Your task to perform on an android device: Open Wikipedia Image 0: 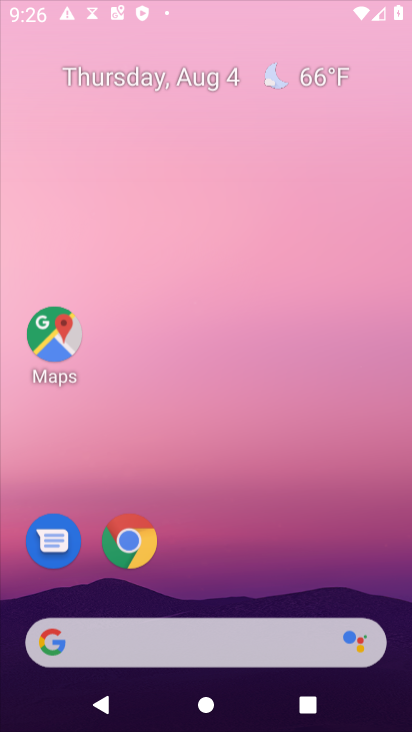
Step 0: press home button
Your task to perform on an android device: Open Wikipedia Image 1: 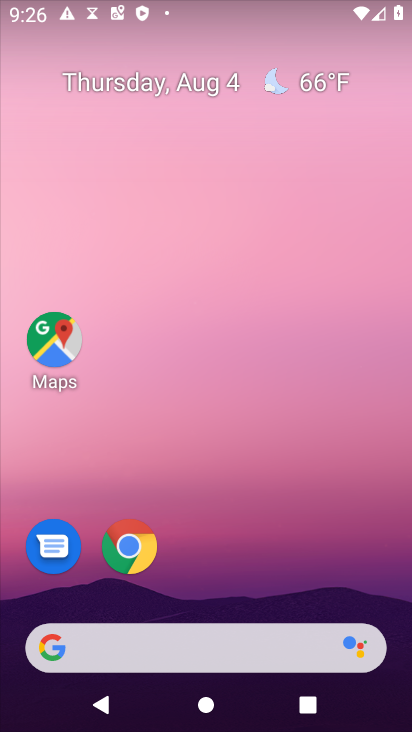
Step 1: click (48, 650)
Your task to perform on an android device: Open Wikipedia Image 2: 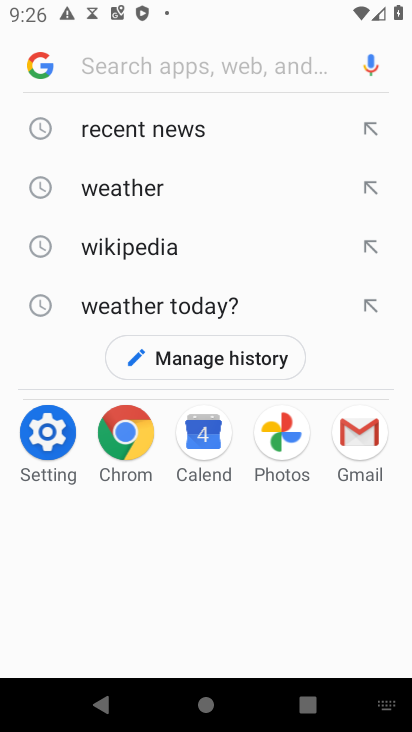
Step 2: click (127, 255)
Your task to perform on an android device: Open Wikipedia Image 3: 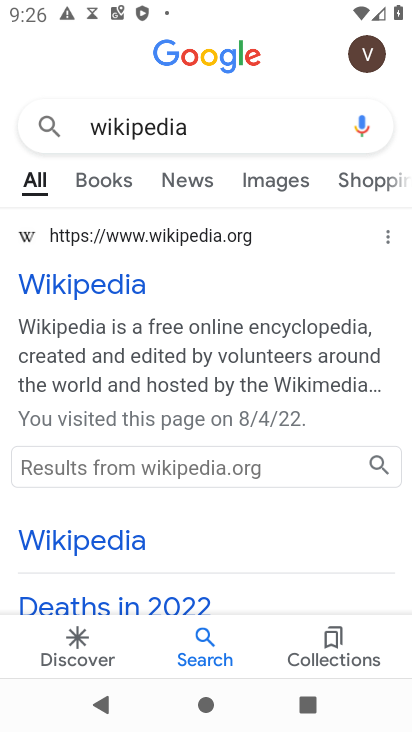
Step 3: click (65, 296)
Your task to perform on an android device: Open Wikipedia Image 4: 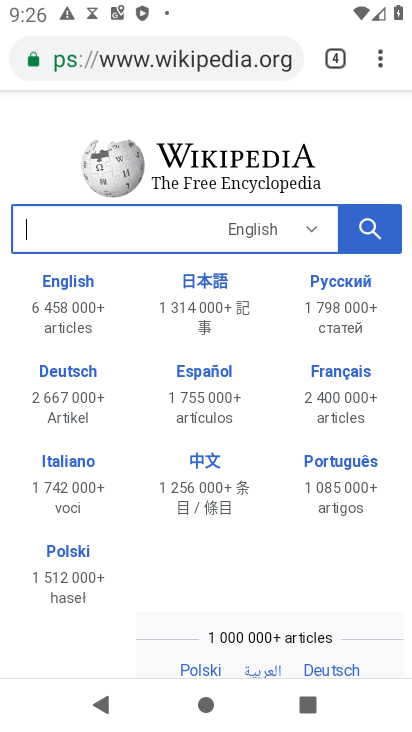
Step 4: task complete